Your task to perform on an android device: change your default location settings in chrome Image 0: 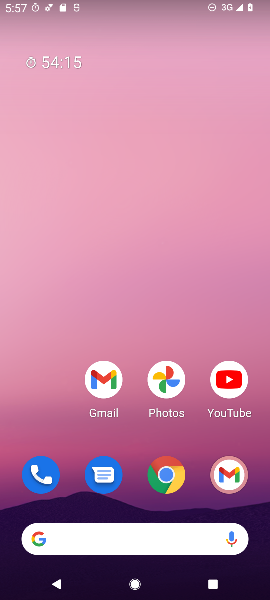
Step 0: press home button
Your task to perform on an android device: change your default location settings in chrome Image 1: 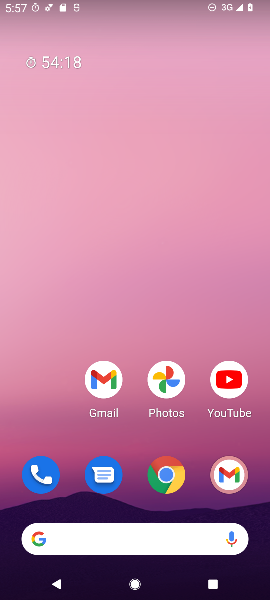
Step 1: drag from (68, 442) to (75, 143)
Your task to perform on an android device: change your default location settings in chrome Image 2: 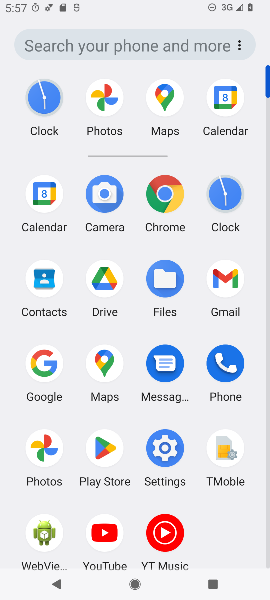
Step 2: click (168, 199)
Your task to perform on an android device: change your default location settings in chrome Image 3: 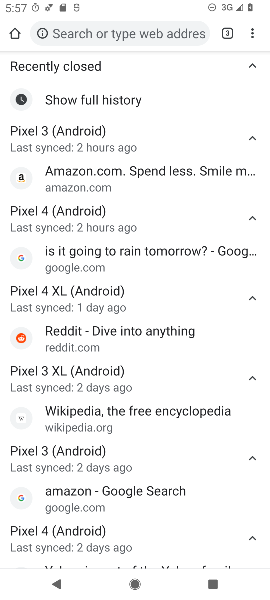
Step 3: click (250, 36)
Your task to perform on an android device: change your default location settings in chrome Image 4: 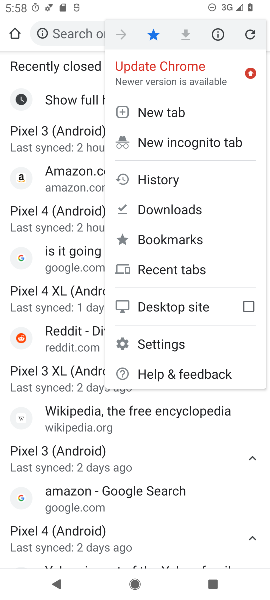
Step 4: click (174, 346)
Your task to perform on an android device: change your default location settings in chrome Image 5: 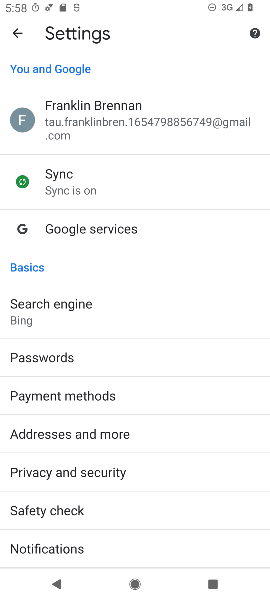
Step 5: drag from (194, 459) to (205, 393)
Your task to perform on an android device: change your default location settings in chrome Image 6: 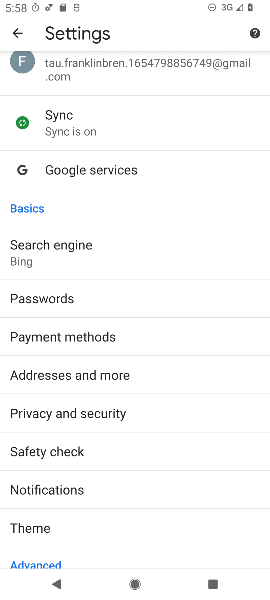
Step 6: drag from (202, 447) to (200, 361)
Your task to perform on an android device: change your default location settings in chrome Image 7: 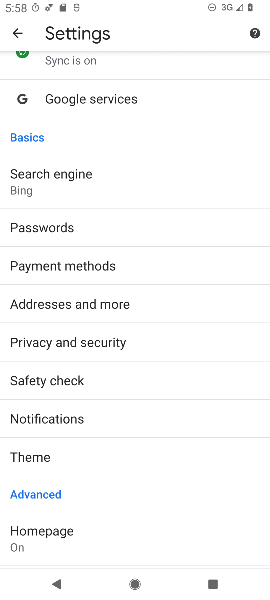
Step 7: drag from (200, 445) to (201, 359)
Your task to perform on an android device: change your default location settings in chrome Image 8: 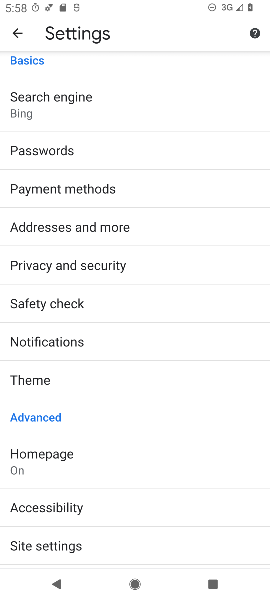
Step 8: drag from (179, 475) to (183, 371)
Your task to perform on an android device: change your default location settings in chrome Image 9: 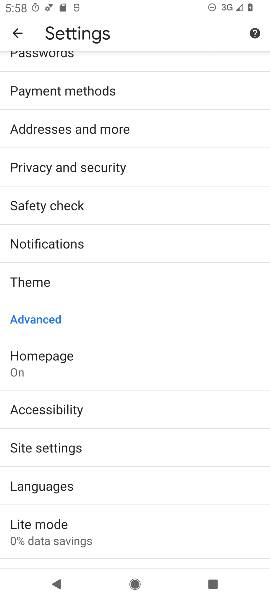
Step 9: drag from (174, 474) to (179, 404)
Your task to perform on an android device: change your default location settings in chrome Image 10: 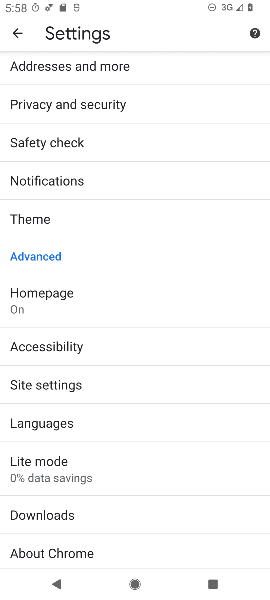
Step 10: click (148, 384)
Your task to perform on an android device: change your default location settings in chrome Image 11: 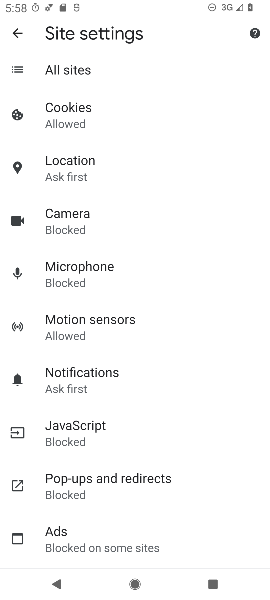
Step 11: drag from (203, 390) to (213, 344)
Your task to perform on an android device: change your default location settings in chrome Image 12: 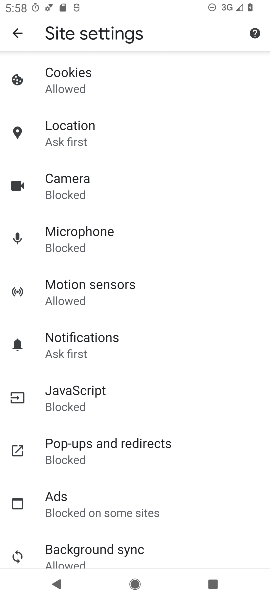
Step 12: drag from (199, 421) to (205, 359)
Your task to perform on an android device: change your default location settings in chrome Image 13: 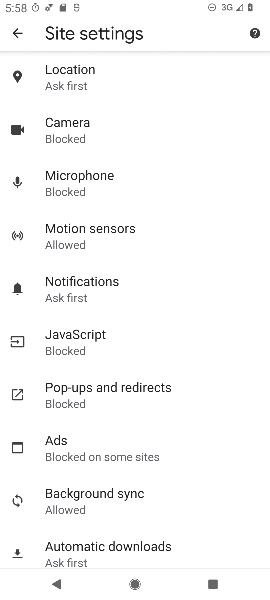
Step 13: drag from (205, 435) to (213, 347)
Your task to perform on an android device: change your default location settings in chrome Image 14: 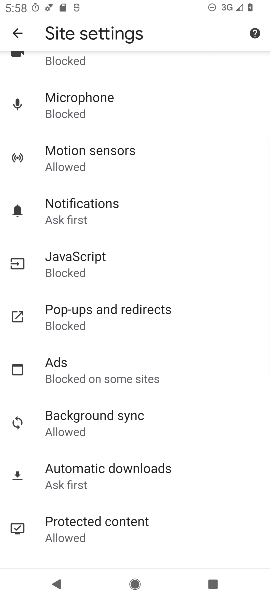
Step 14: drag from (213, 253) to (213, 347)
Your task to perform on an android device: change your default location settings in chrome Image 15: 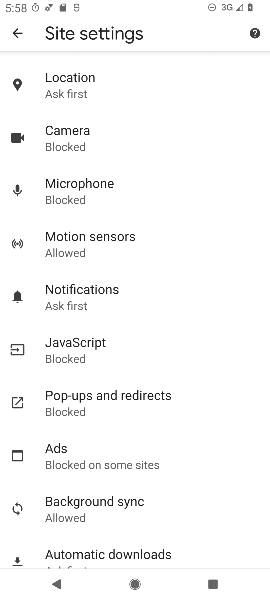
Step 15: drag from (219, 203) to (217, 274)
Your task to perform on an android device: change your default location settings in chrome Image 16: 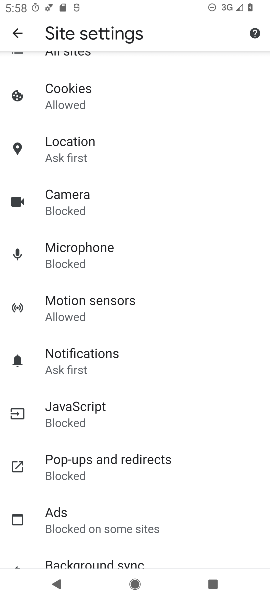
Step 16: drag from (219, 171) to (216, 311)
Your task to perform on an android device: change your default location settings in chrome Image 17: 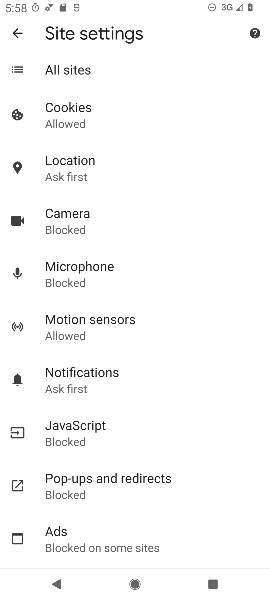
Step 17: click (120, 173)
Your task to perform on an android device: change your default location settings in chrome Image 18: 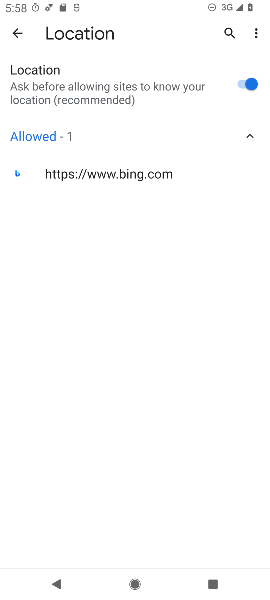
Step 18: click (246, 87)
Your task to perform on an android device: change your default location settings in chrome Image 19: 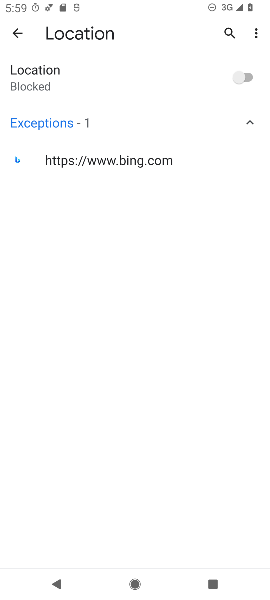
Step 19: task complete